Your task to perform on an android device: Open Yahoo.com Image 0: 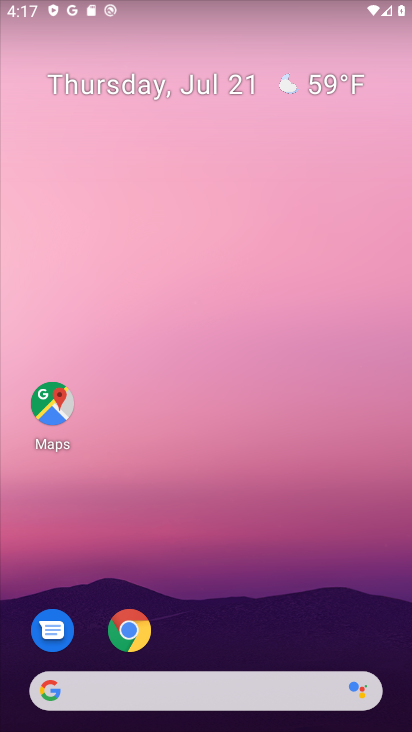
Step 0: drag from (162, 229) to (157, 192)
Your task to perform on an android device: Open Yahoo.com Image 1: 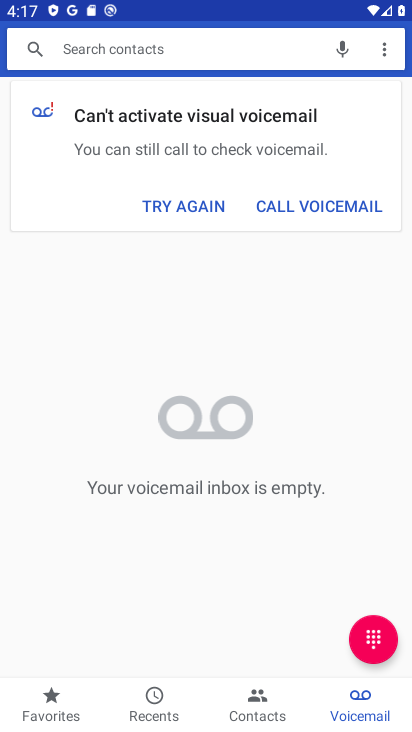
Step 1: drag from (385, 45) to (122, 312)
Your task to perform on an android device: Open Yahoo.com Image 2: 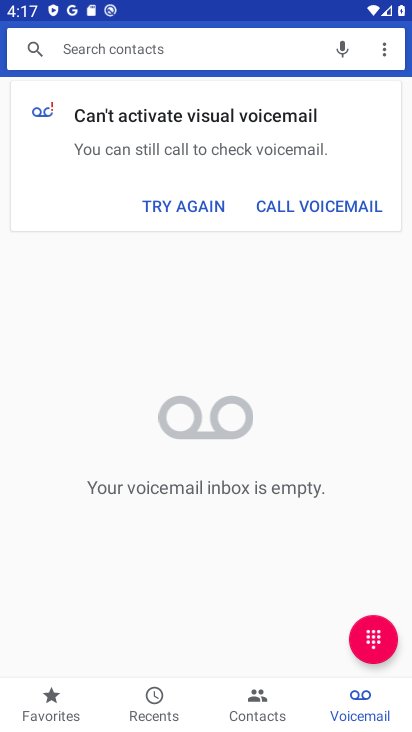
Step 2: press back button
Your task to perform on an android device: Open Yahoo.com Image 3: 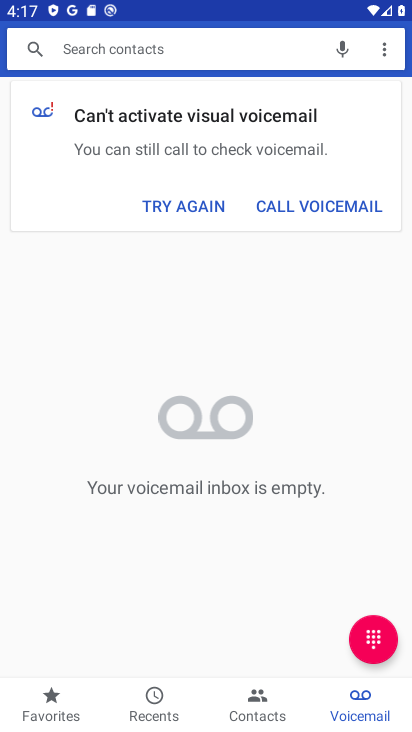
Step 3: press back button
Your task to perform on an android device: Open Yahoo.com Image 4: 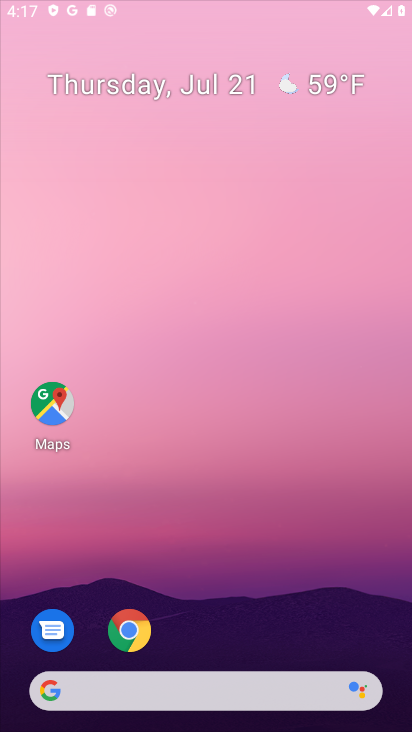
Step 4: press back button
Your task to perform on an android device: Open Yahoo.com Image 5: 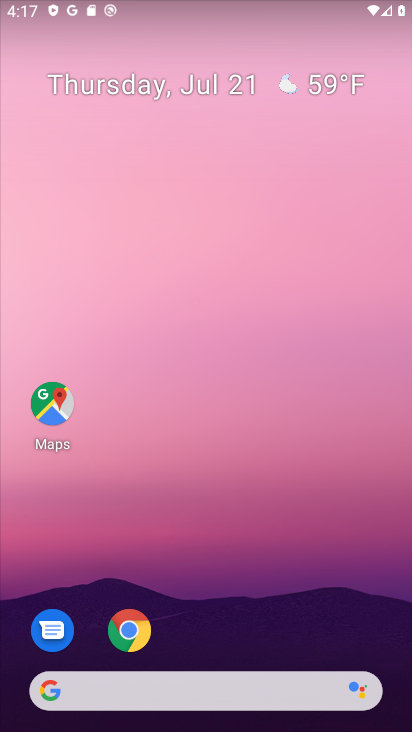
Step 5: drag from (188, 538) to (133, 137)
Your task to perform on an android device: Open Yahoo.com Image 6: 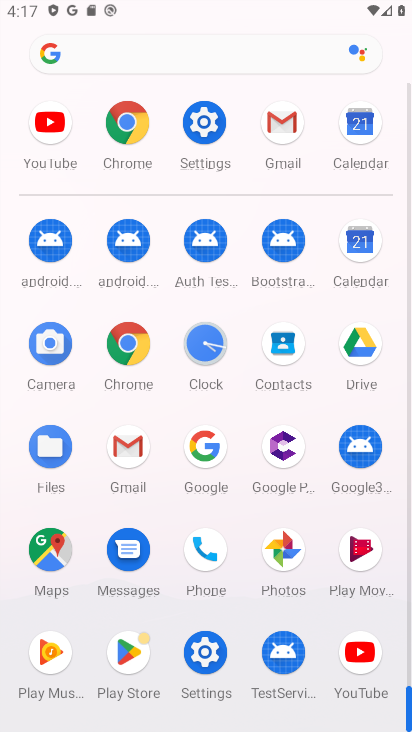
Step 6: click (127, 116)
Your task to perform on an android device: Open Yahoo.com Image 7: 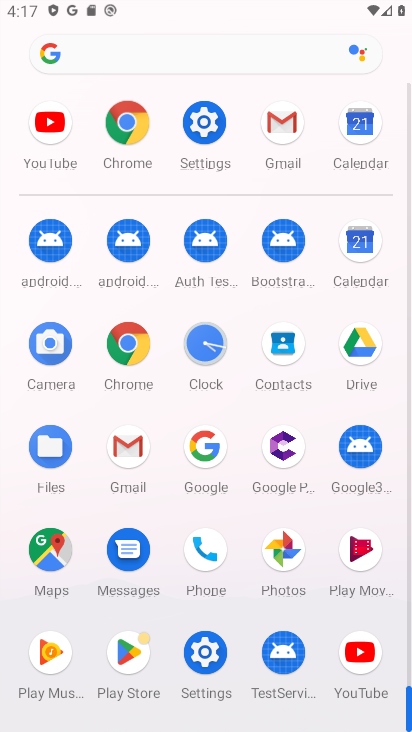
Step 7: click (128, 120)
Your task to perform on an android device: Open Yahoo.com Image 8: 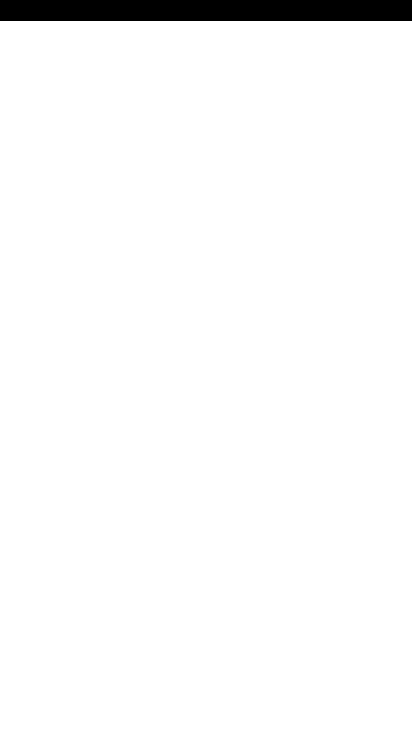
Step 8: click (129, 121)
Your task to perform on an android device: Open Yahoo.com Image 9: 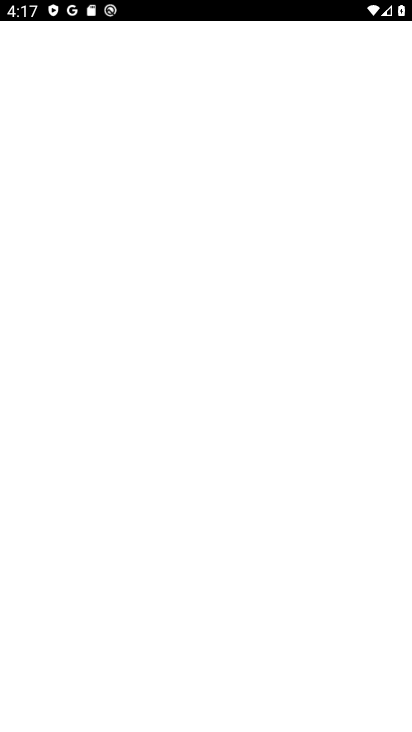
Step 9: click (133, 124)
Your task to perform on an android device: Open Yahoo.com Image 10: 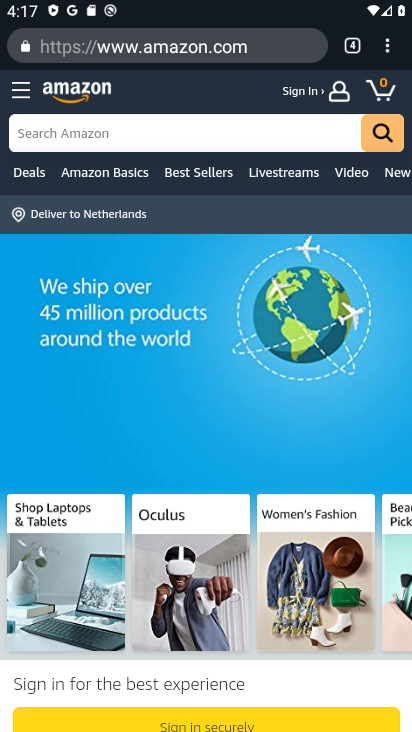
Step 10: drag from (389, 44) to (213, 91)
Your task to perform on an android device: Open Yahoo.com Image 11: 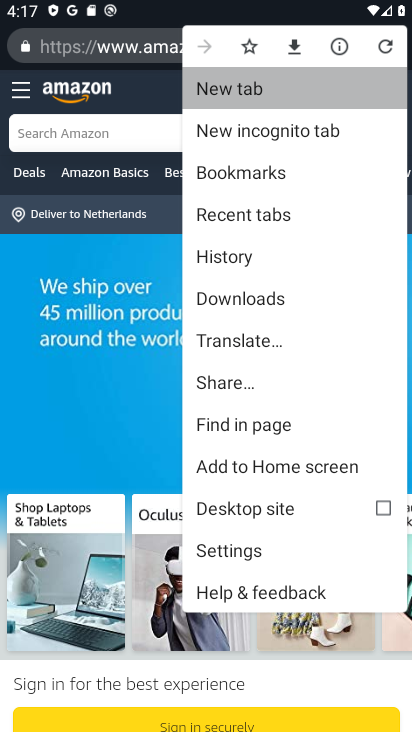
Step 11: click (220, 98)
Your task to perform on an android device: Open Yahoo.com Image 12: 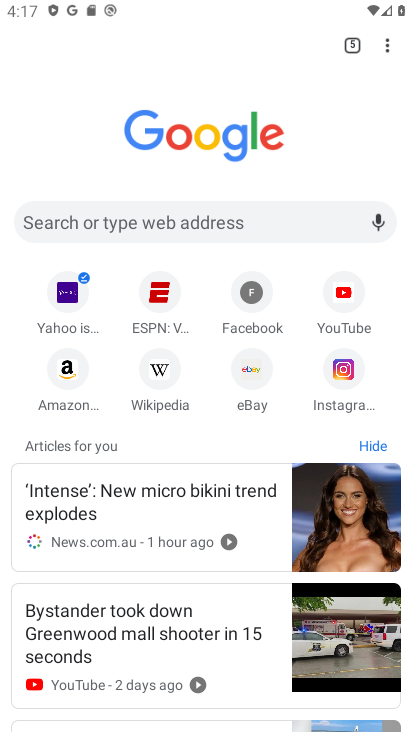
Step 12: click (74, 306)
Your task to perform on an android device: Open Yahoo.com Image 13: 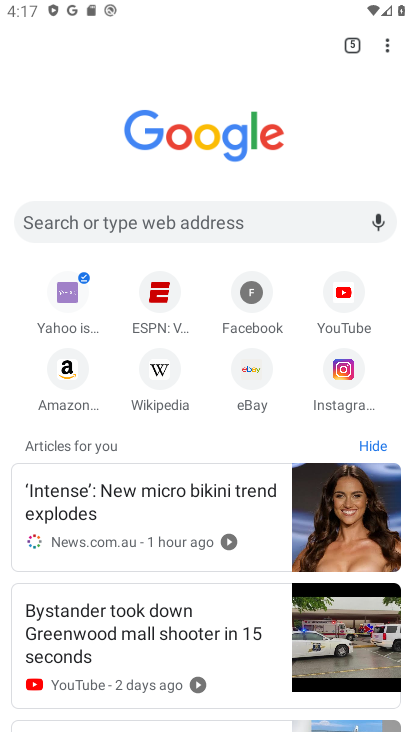
Step 13: click (74, 306)
Your task to perform on an android device: Open Yahoo.com Image 14: 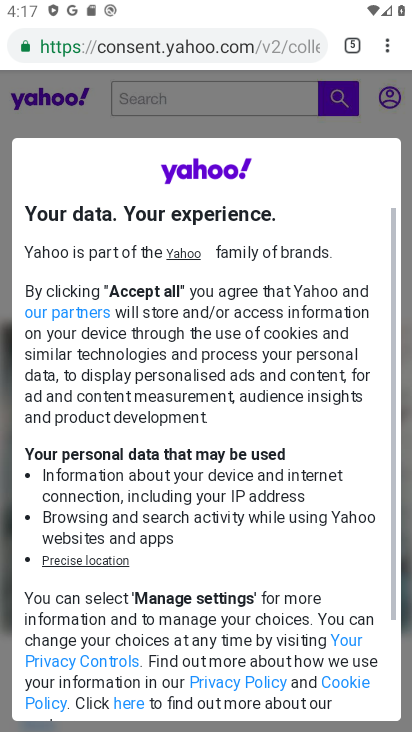
Step 14: task complete